Your task to perform on an android device: Go to ESPN.com Image 0: 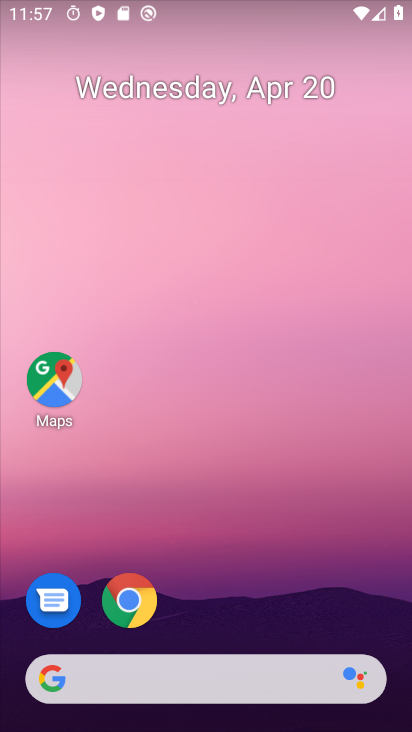
Step 0: drag from (370, 567) to (331, 94)
Your task to perform on an android device: Go to ESPN.com Image 1: 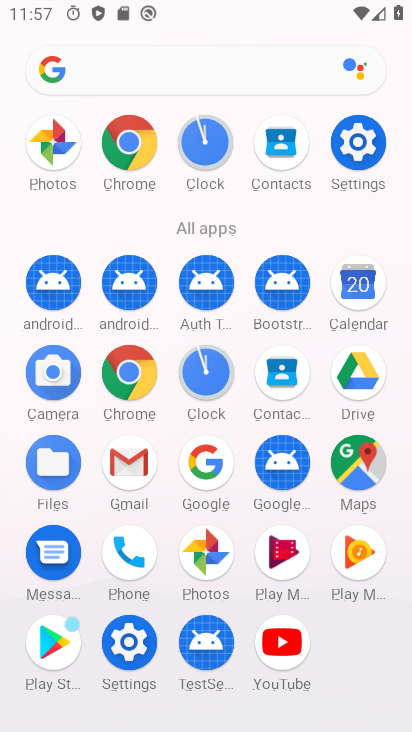
Step 1: click (139, 377)
Your task to perform on an android device: Go to ESPN.com Image 2: 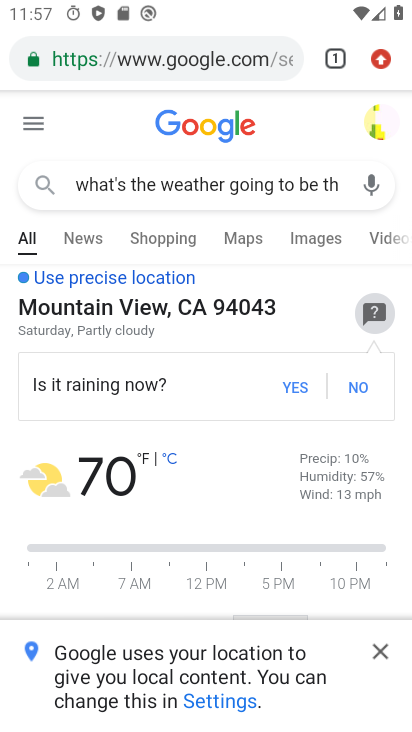
Step 2: click (181, 53)
Your task to perform on an android device: Go to ESPN.com Image 3: 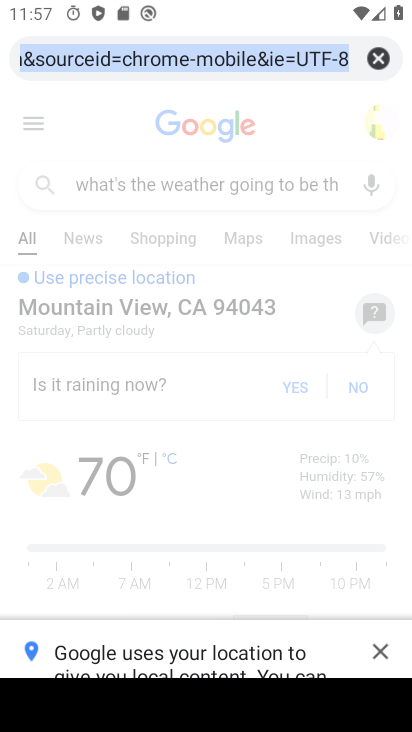
Step 3: click (374, 59)
Your task to perform on an android device: Go to ESPN.com Image 4: 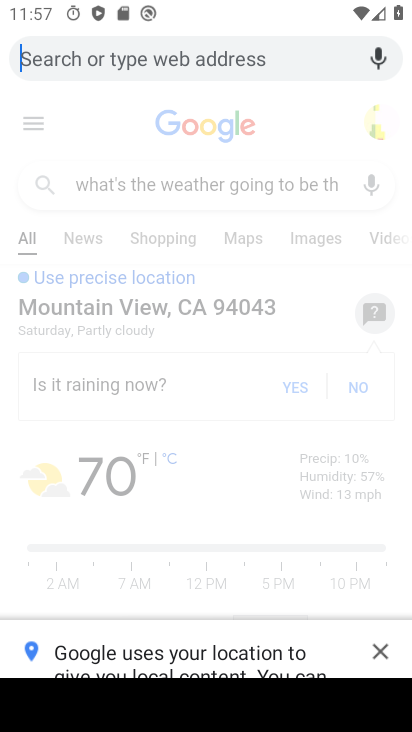
Step 4: type "espn.com"
Your task to perform on an android device: Go to ESPN.com Image 5: 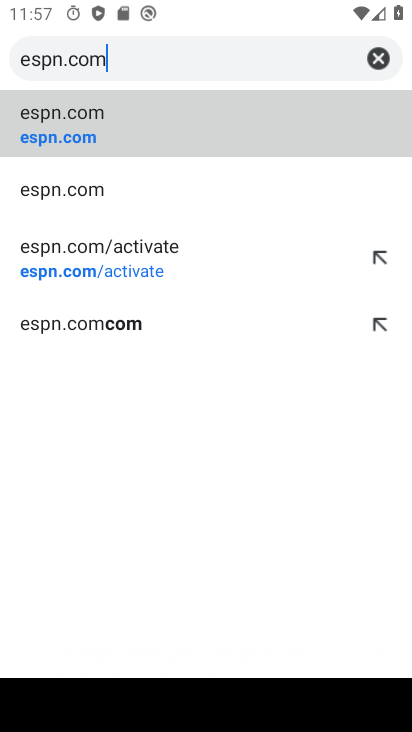
Step 5: click (69, 128)
Your task to perform on an android device: Go to ESPN.com Image 6: 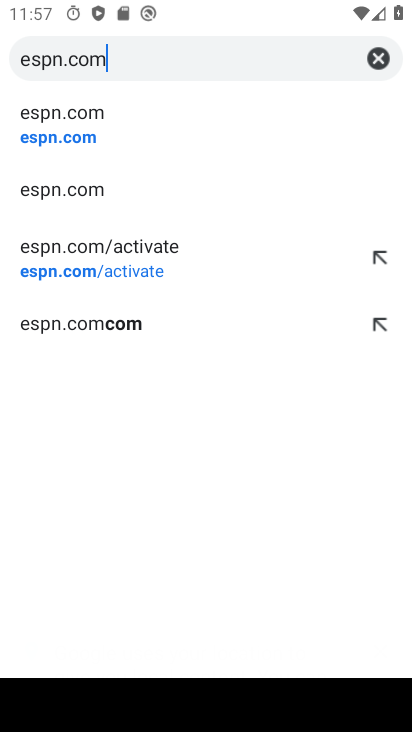
Step 6: click (74, 137)
Your task to perform on an android device: Go to ESPN.com Image 7: 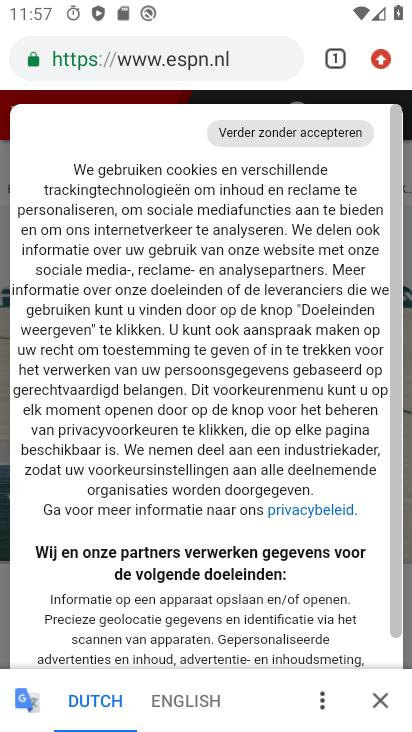
Step 7: task complete